Your task to perform on an android device: set an alarm Image 0: 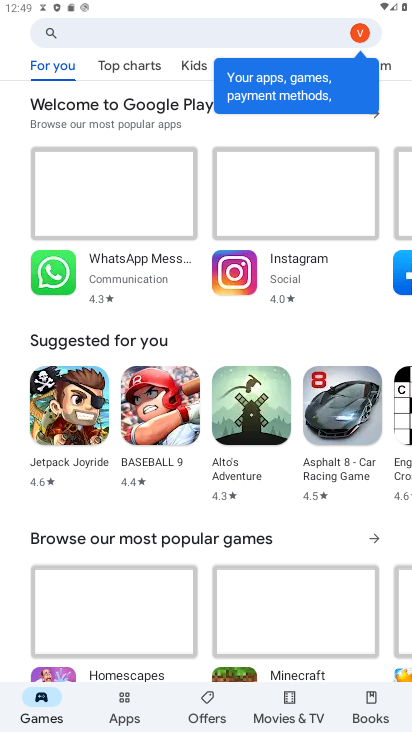
Step 0: press home button
Your task to perform on an android device: set an alarm Image 1: 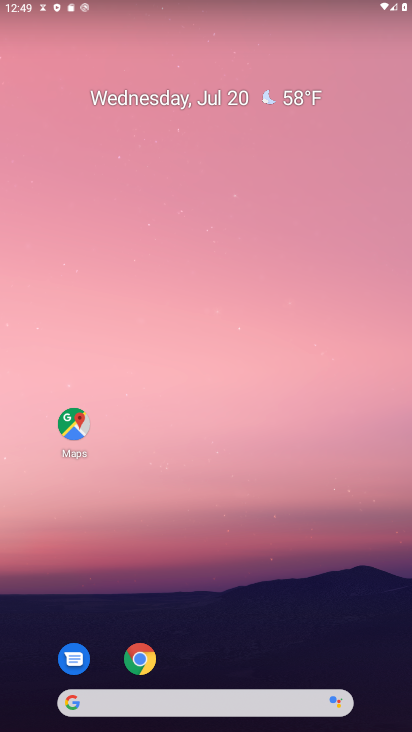
Step 1: drag from (203, 659) to (245, 45)
Your task to perform on an android device: set an alarm Image 2: 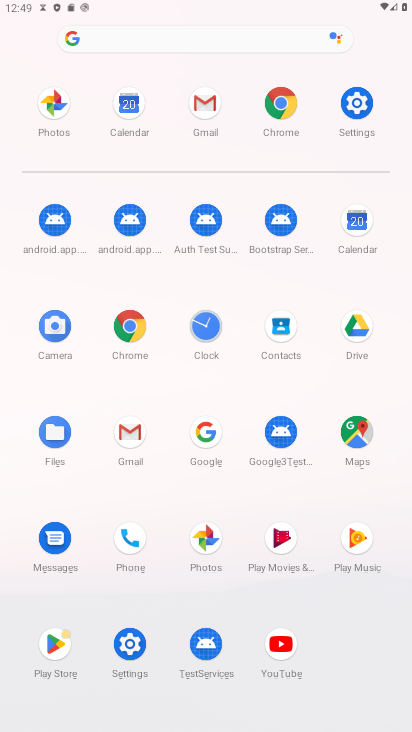
Step 2: click (205, 320)
Your task to perform on an android device: set an alarm Image 3: 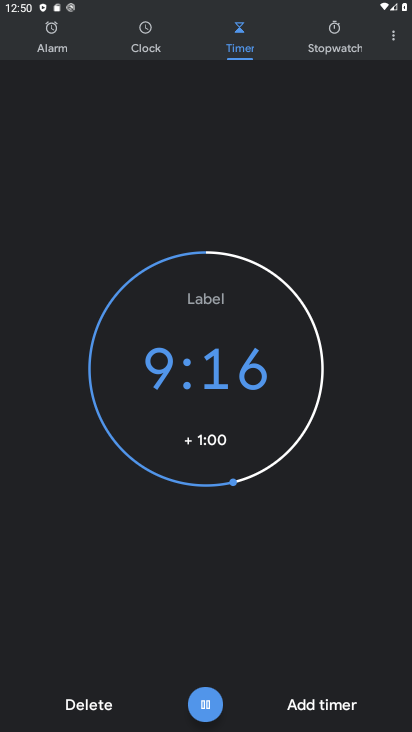
Step 3: click (57, 30)
Your task to perform on an android device: set an alarm Image 4: 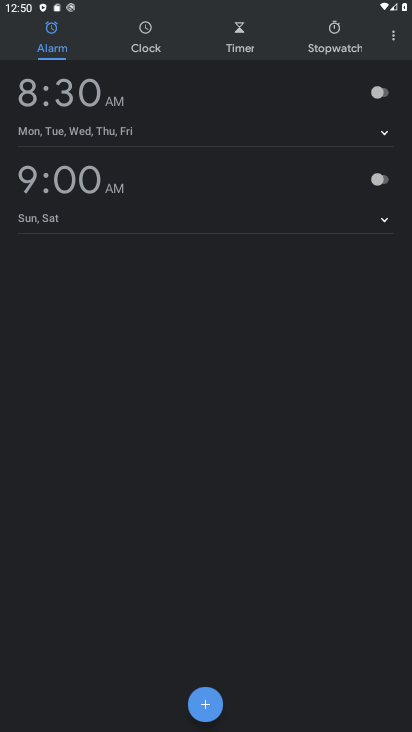
Step 4: click (380, 94)
Your task to perform on an android device: set an alarm Image 5: 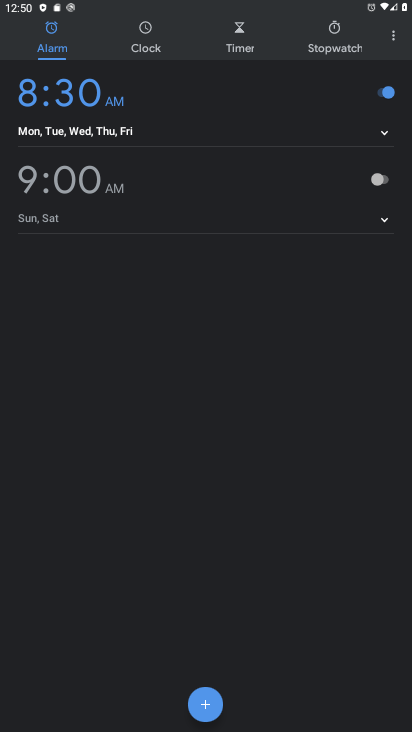
Step 5: click (380, 180)
Your task to perform on an android device: set an alarm Image 6: 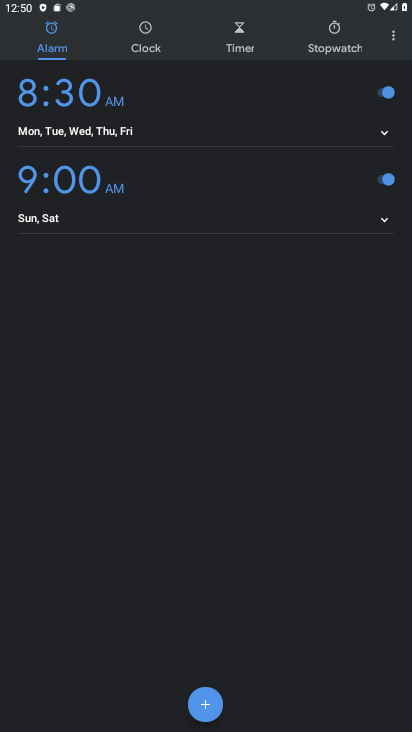
Step 6: task complete